Your task to perform on an android device: toggle show notifications on the lock screen Image 0: 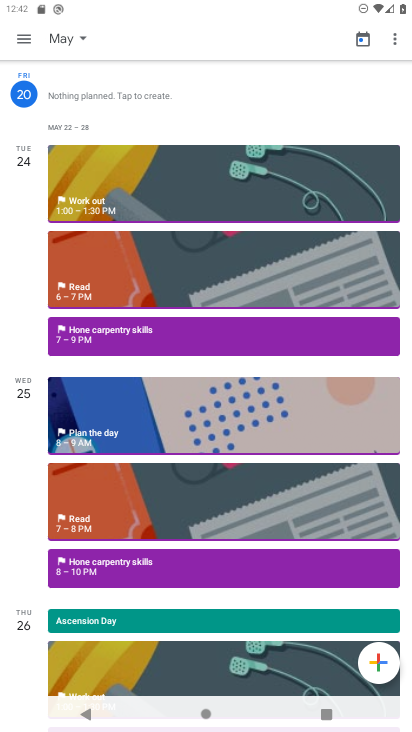
Step 0: press home button
Your task to perform on an android device: toggle show notifications on the lock screen Image 1: 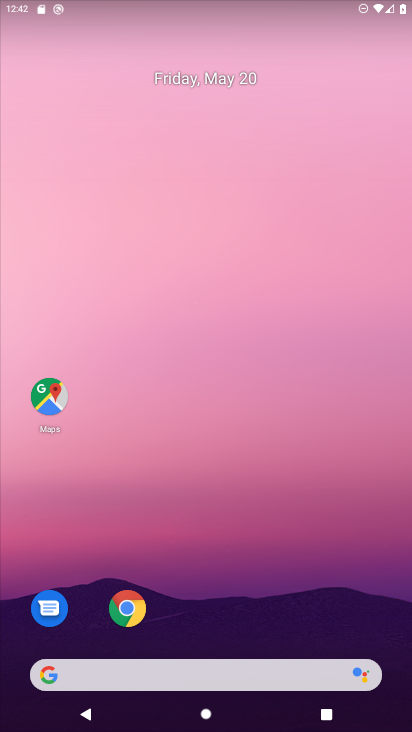
Step 1: drag from (249, 601) to (273, 170)
Your task to perform on an android device: toggle show notifications on the lock screen Image 2: 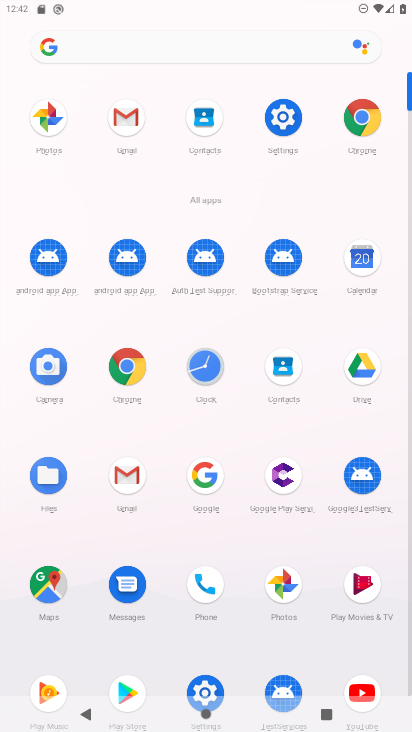
Step 2: click (206, 682)
Your task to perform on an android device: toggle show notifications on the lock screen Image 3: 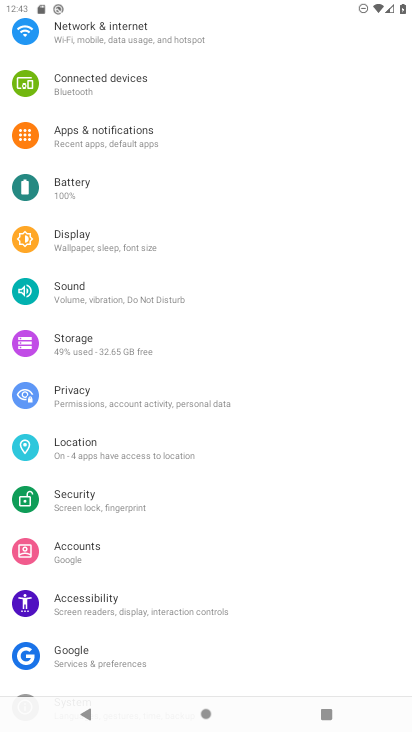
Step 3: click (147, 136)
Your task to perform on an android device: toggle show notifications on the lock screen Image 4: 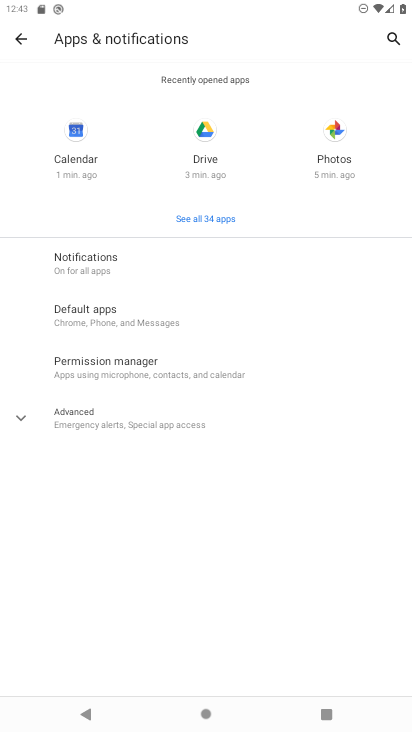
Step 4: click (107, 264)
Your task to perform on an android device: toggle show notifications on the lock screen Image 5: 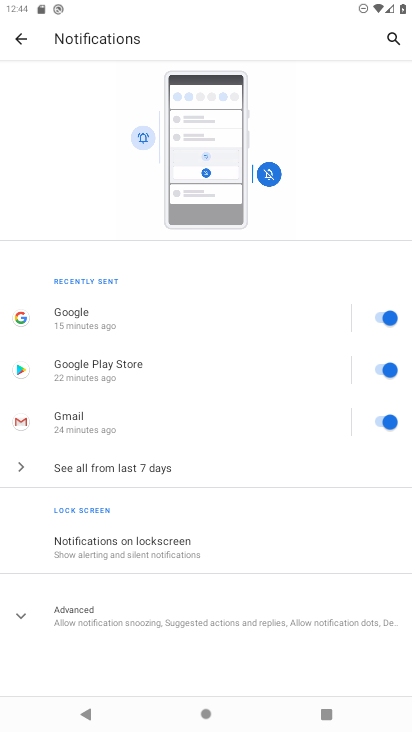
Step 5: click (182, 541)
Your task to perform on an android device: toggle show notifications on the lock screen Image 6: 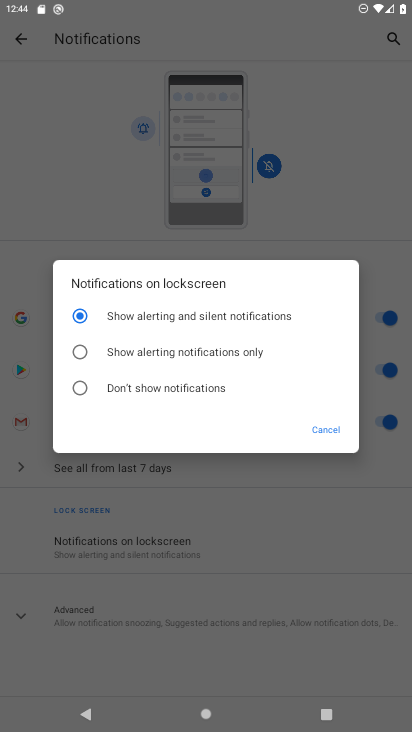
Step 6: click (193, 391)
Your task to perform on an android device: toggle show notifications on the lock screen Image 7: 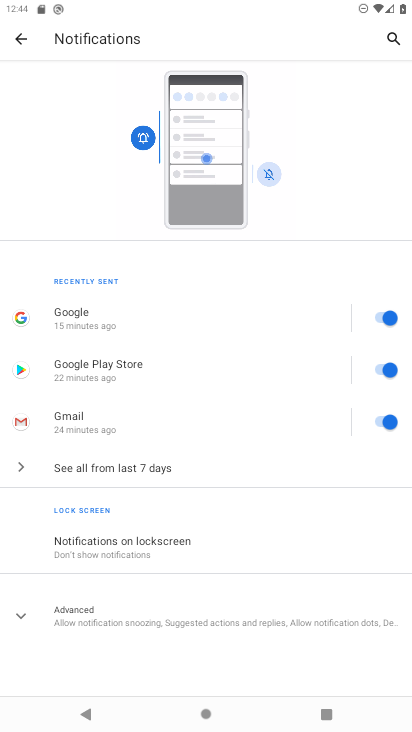
Step 7: task complete